Your task to perform on an android device: Open Chrome and go to settings Image 0: 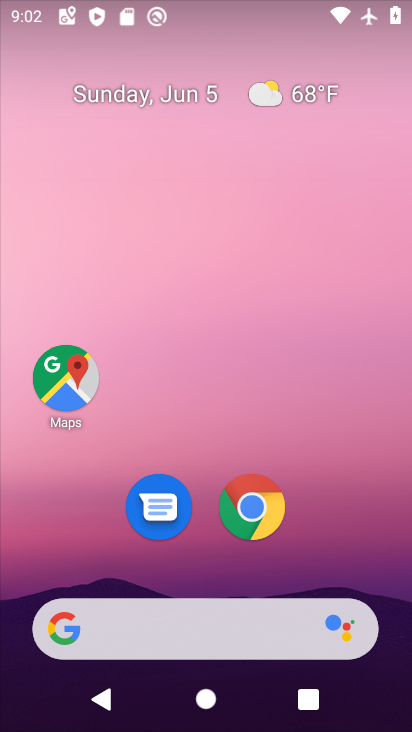
Step 0: click (247, 499)
Your task to perform on an android device: Open Chrome and go to settings Image 1: 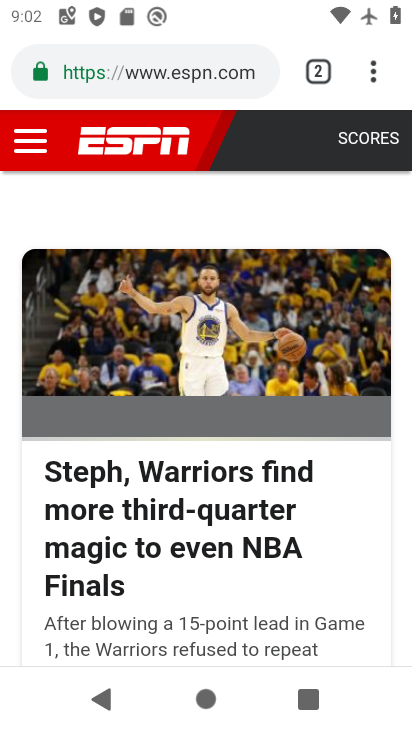
Step 1: click (373, 77)
Your task to perform on an android device: Open Chrome and go to settings Image 2: 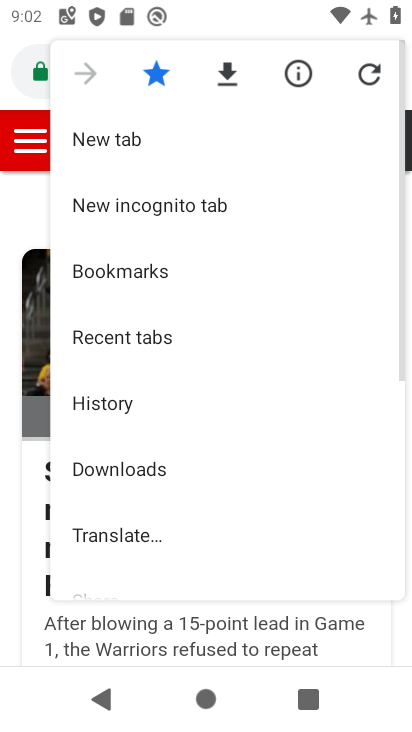
Step 2: drag from (167, 547) to (210, 98)
Your task to perform on an android device: Open Chrome and go to settings Image 3: 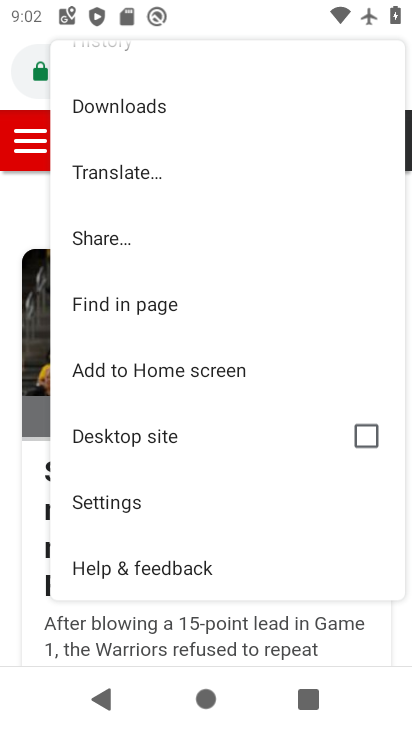
Step 3: click (134, 508)
Your task to perform on an android device: Open Chrome and go to settings Image 4: 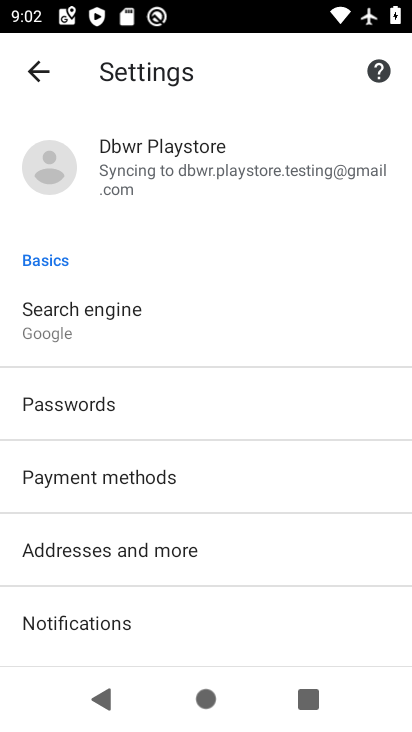
Step 4: task complete